Your task to perform on an android device: Open Google Image 0: 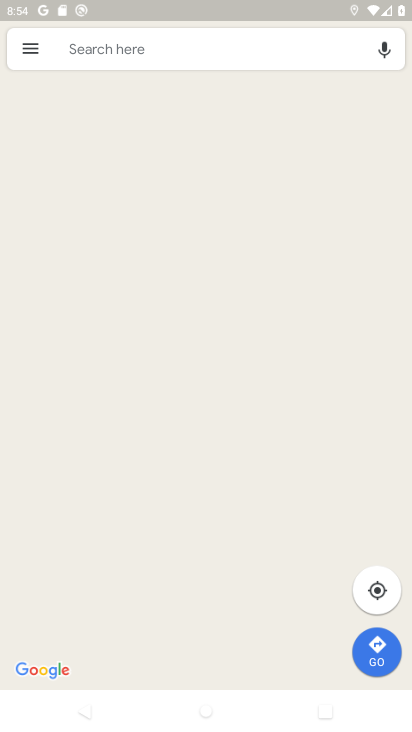
Step 0: press home button
Your task to perform on an android device: Open Google Image 1: 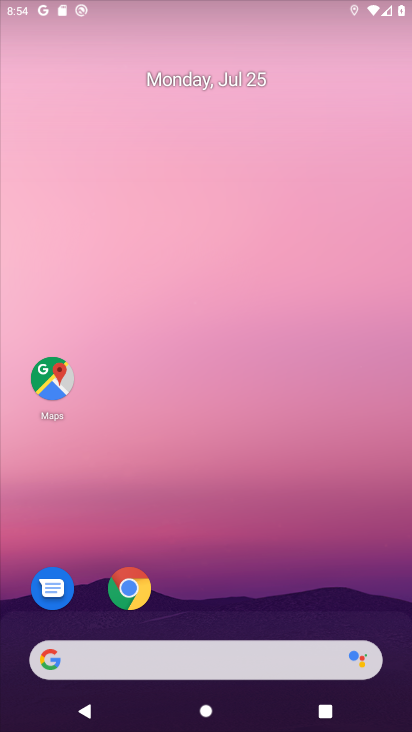
Step 1: drag from (206, 563) to (211, 113)
Your task to perform on an android device: Open Google Image 2: 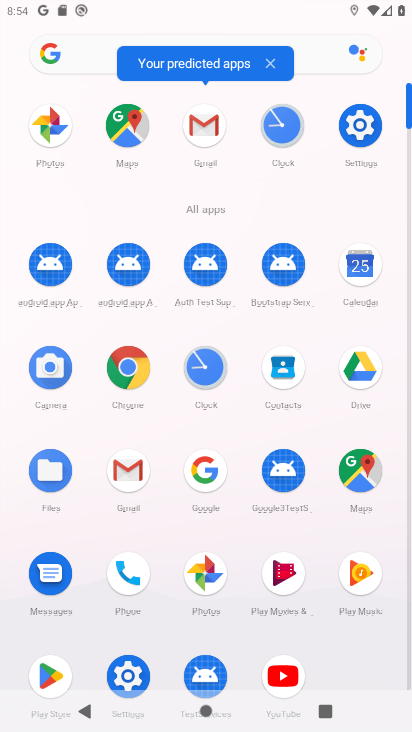
Step 2: click (203, 472)
Your task to perform on an android device: Open Google Image 3: 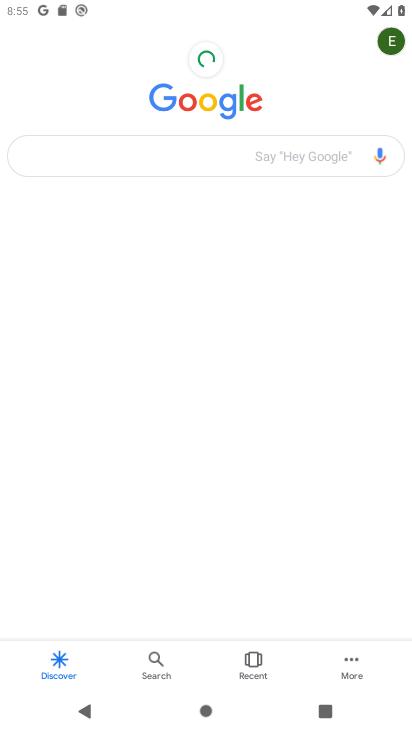
Step 3: task complete